Your task to perform on an android device: Open maps Image 0: 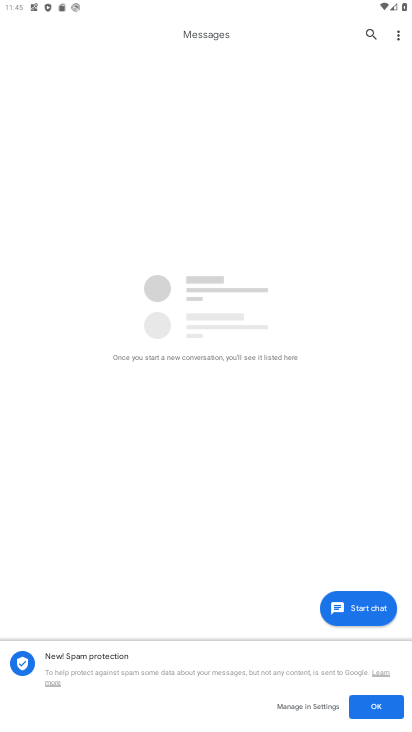
Step 0: press home button
Your task to perform on an android device: Open maps Image 1: 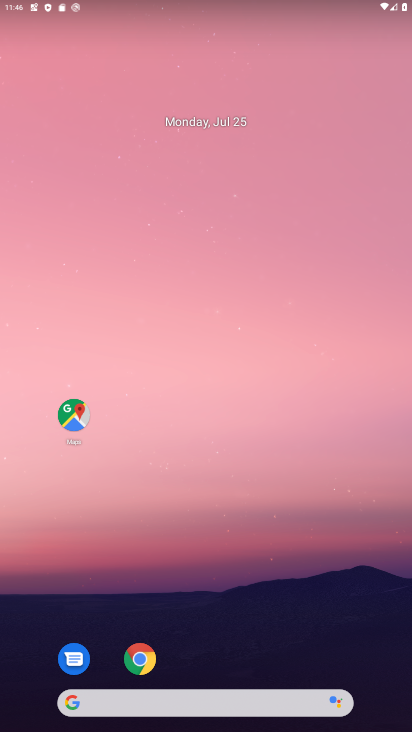
Step 1: click (77, 420)
Your task to perform on an android device: Open maps Image 2: 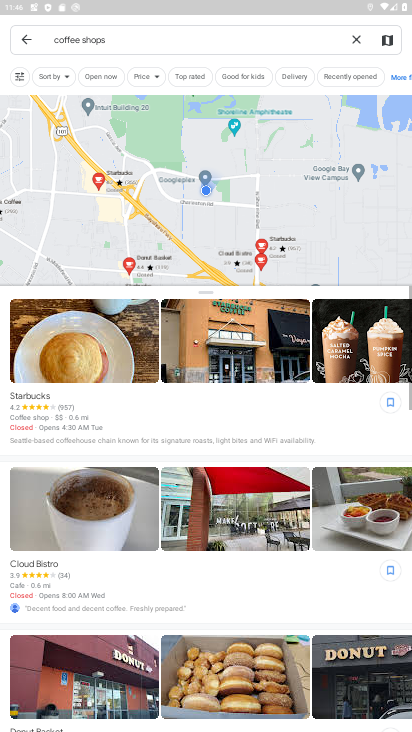
Step 2: task complete